Your task to perform on an android device: Open calendar and show me the fourth week of next month Image 0: 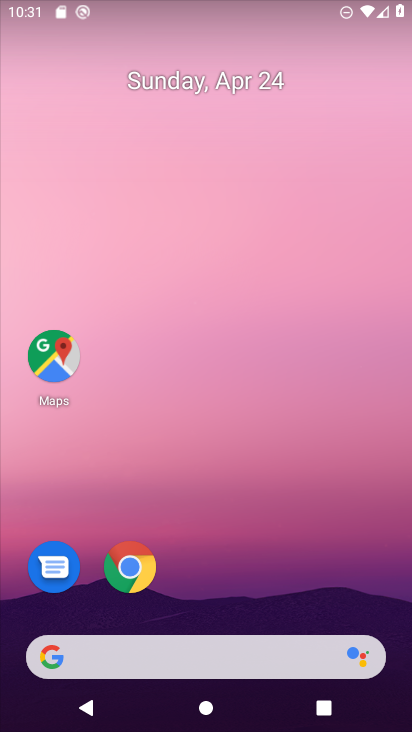
Step 0: drag from (140, 607) to (160, 227)
Your task to perform on an android device: Open calendar and show me the fourth week of next month Image 1: 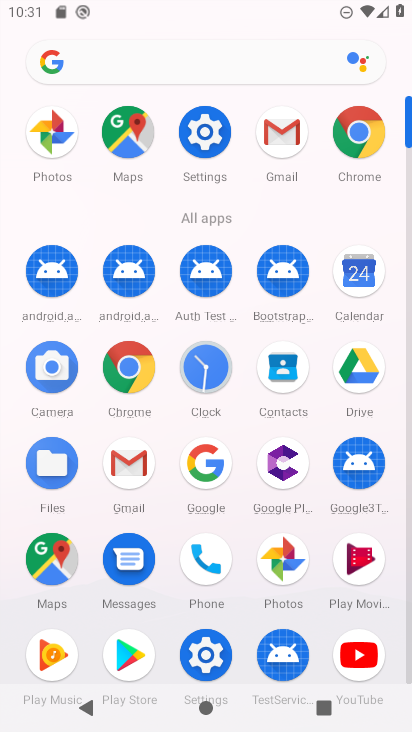
Step 1: click (350, 284)
Your task to perform on an android device: Open calendar and show me the fourth week of next month Image 2: 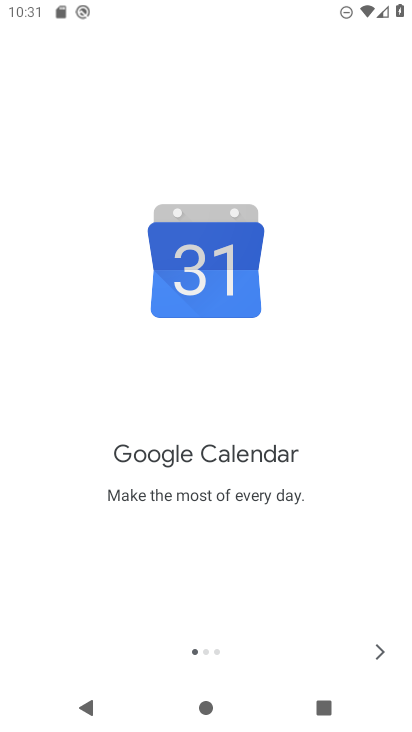
Step 2: click (372, 645)
Your task to perform on an android device: Open calendar and show me the fourth week of next month Image 3: 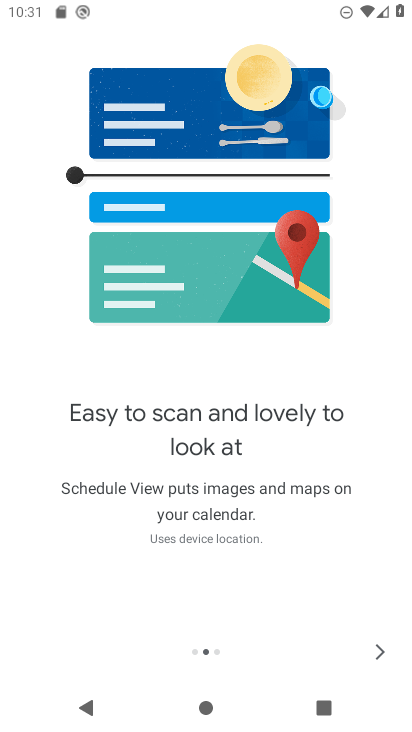
Step 3: click (373, 643)
Your task to perform on an android device: Open calendar and show me the fourth week of next month Image 4: 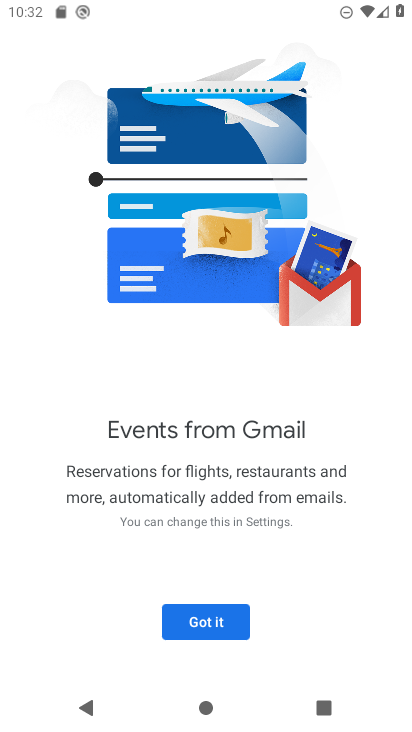
Step 4: click (372, 642)
Your task to perform on an android device: Open calendar and show me the fourth week of next month Image 5: 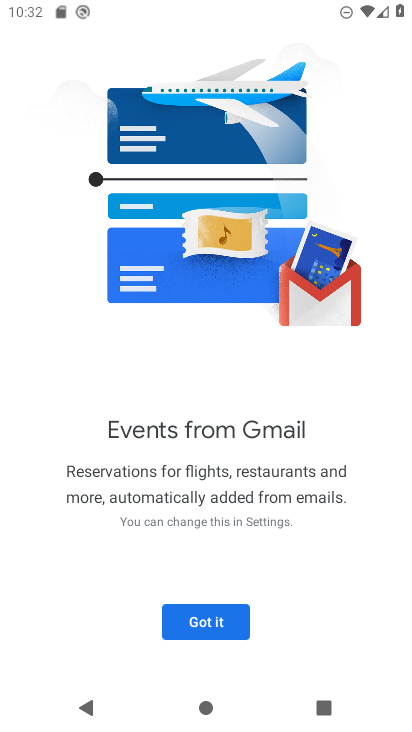
Step 5: click (209, 630)
Your task to perform on an android device: Open calendar and show me the fourth week of next month Image 6: 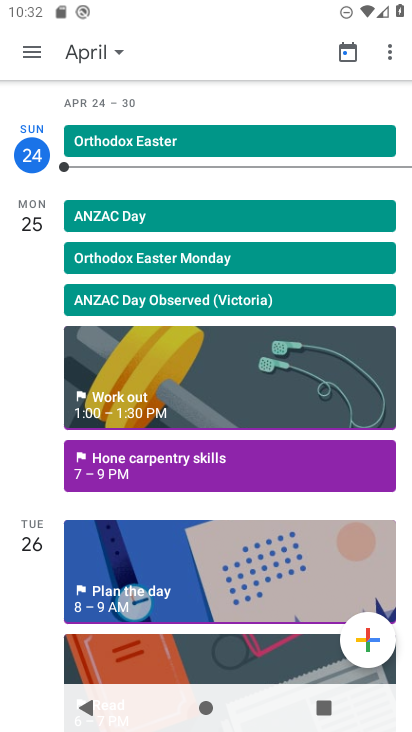
Step 6: click (114, 59)
Your task to perform on an android device: Open calendar and show me the fourth week of next month Image 7: 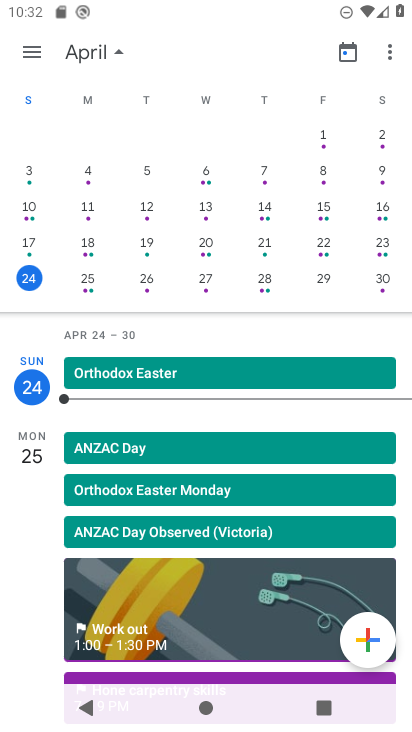
Step 7: drag from (331, 234) to (89, 278)
Your task to perform on an android device: Open calendar and show me the fourth week of next month Image 8: 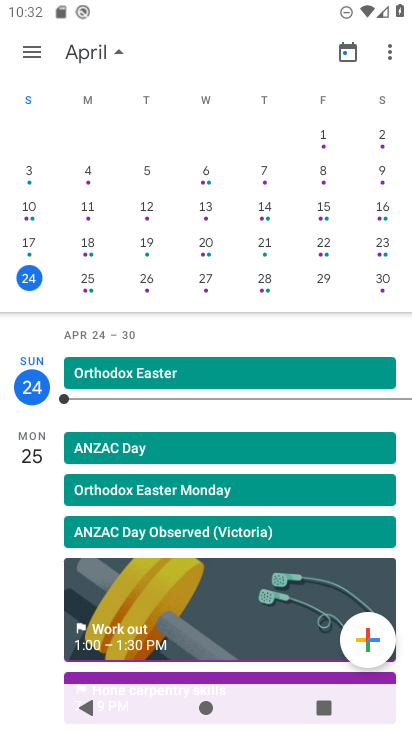
Step 8: drag from (397, 238) to (27, 239)
Your task to perform on an android device: Open calendar and show me the fourth week of next month Image 9: 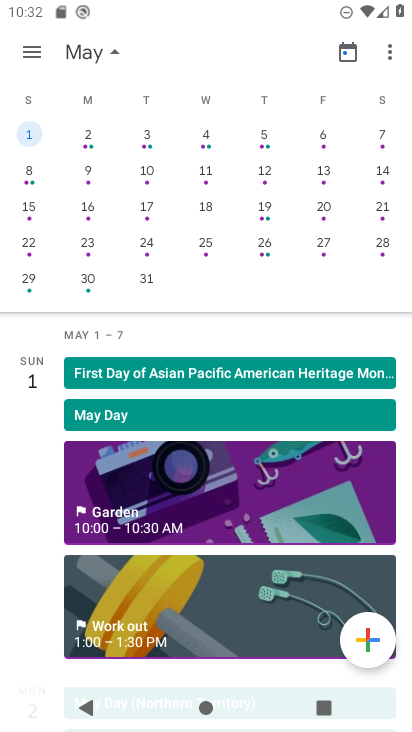
Step 9: click (151, 240)
Your task to perform on an android device: Open calendar and show me the fourth week of next month Image 10: 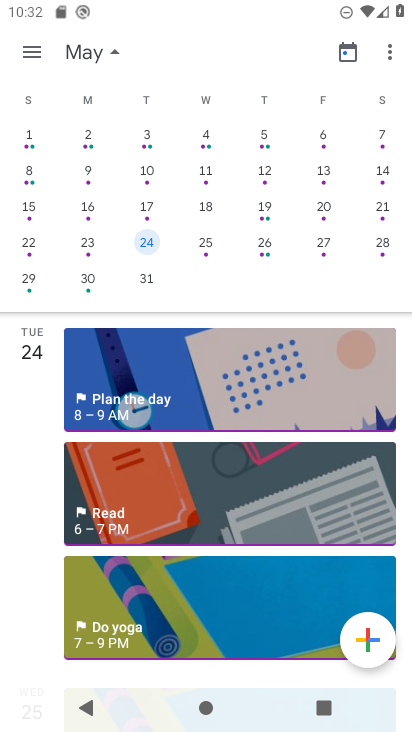
Step 10: click (26, 59)
Your task to perform on an android device: Open calendar and show me the fourth week of next month Image 11: 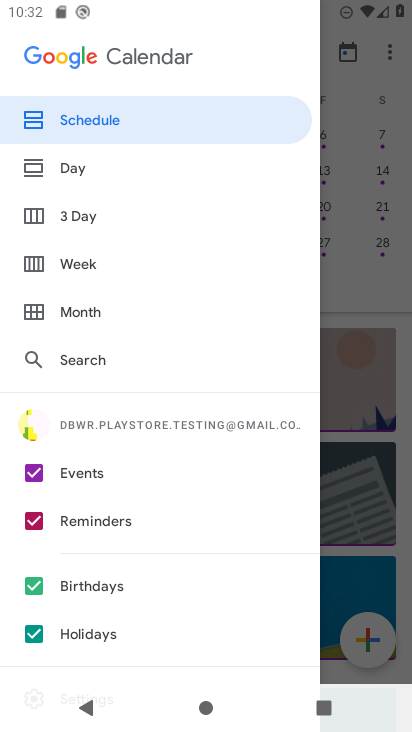
Step 11: click (72, 268)
Your task to perform on an android device: Open calendar and show me the fourth week of next month Image 12: 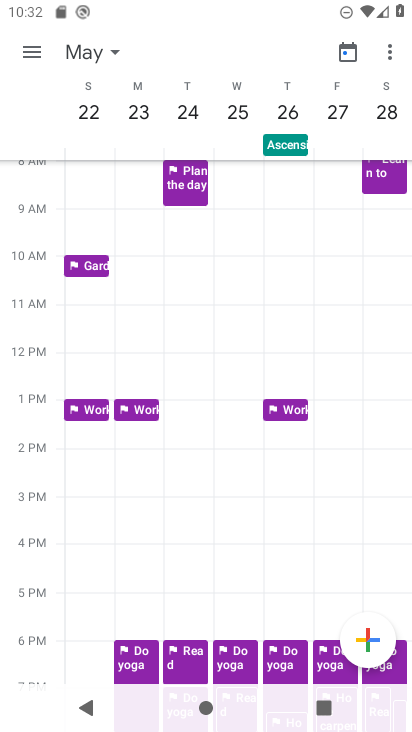
Step 12: task complete